Your task to perform on an android device: all mails in gmail Image 0: 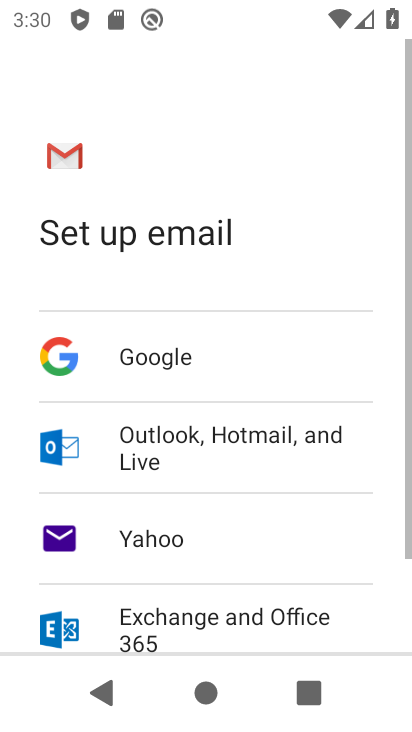
Step 0: press home button
Your task to perform on an android device: all mails in gmail Image 1: 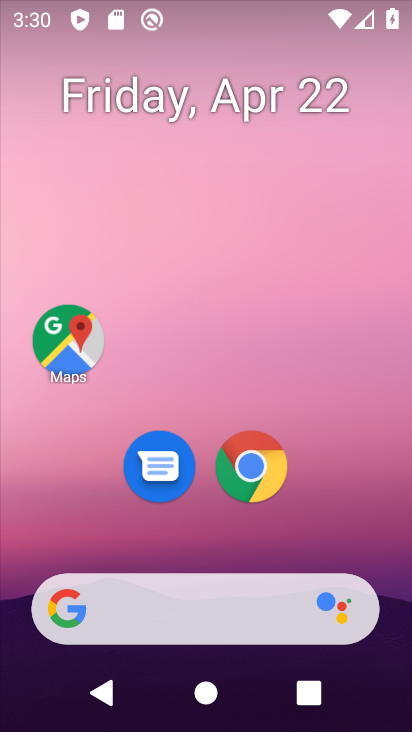
Step 1: drag from (397, 610) to (328, 200)
Your task to perform on an android device: all mails in gmail Image 2: 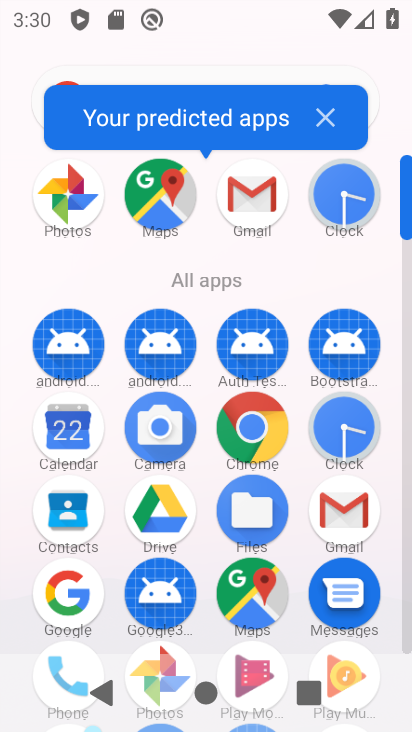
Step 2: click (404, 635)
Your task to perform on an android device: all mails in gmail Image 3: 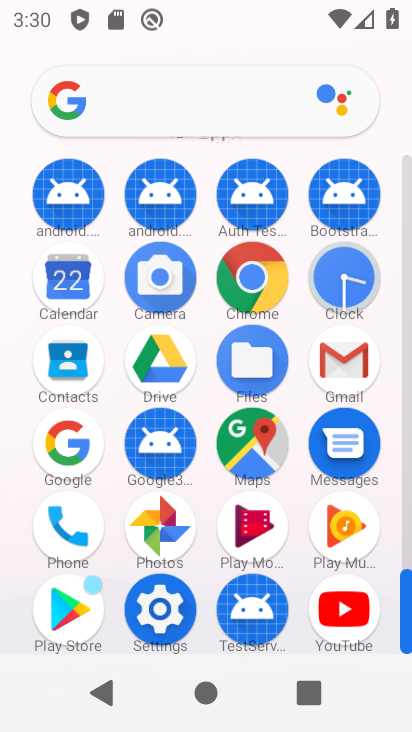
Step 3: click (343, 362)
Your task to perform on an android device: all mails in gmail Image 4: 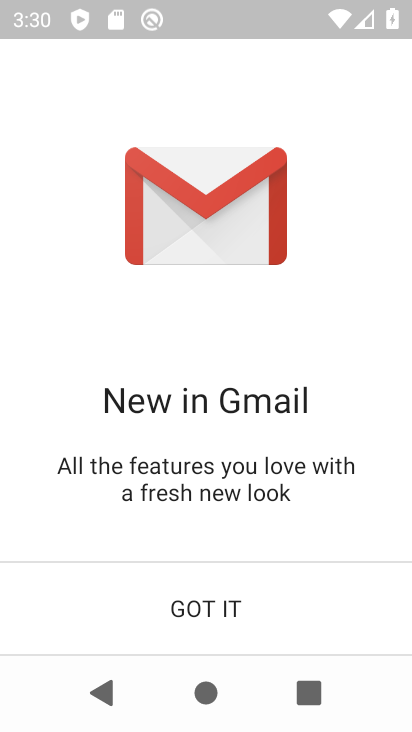
Step 4: click (204, 604)
Your task to perform on an android device: all mails in gmail Image 5: 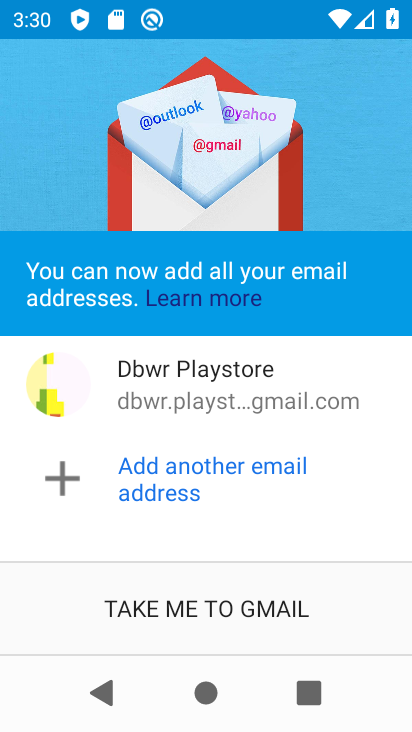
Step 5: click (204, 604)
Your task to perform on an android device: all mails in gmail Image 6: 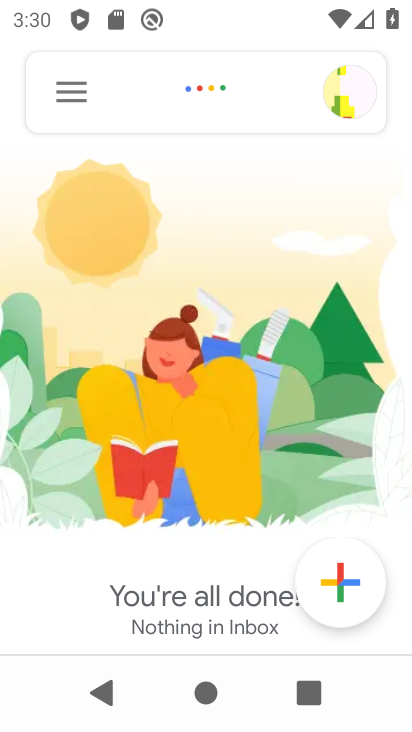
Step 6: click (74, 90)
Your task to perform on an android device: all mails in gmail Image 7: 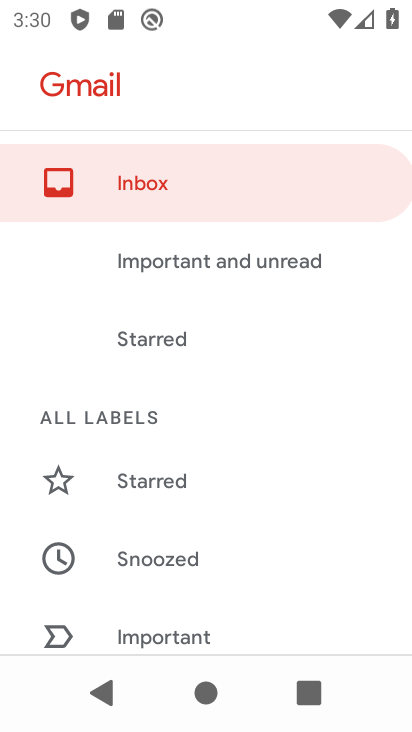
Step 7: drag from (240, 551) to (258, 221)
Your task to perform on an android device: all mails in gmail Image 8: 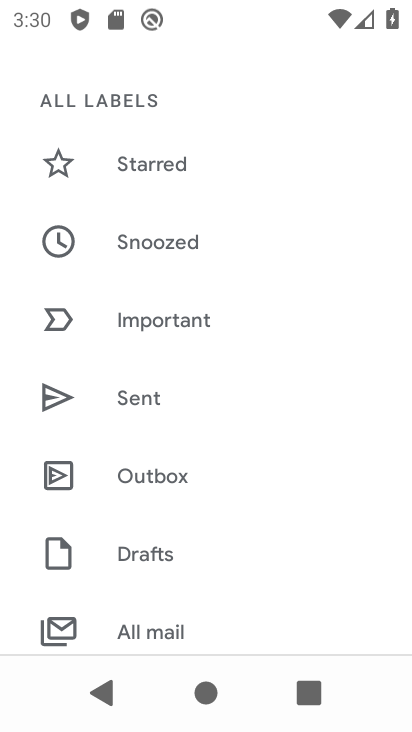
Step 8: drag from (247, 556) to (237, 254)
Your task to perform on an android device: all mails in gmail Image 9: 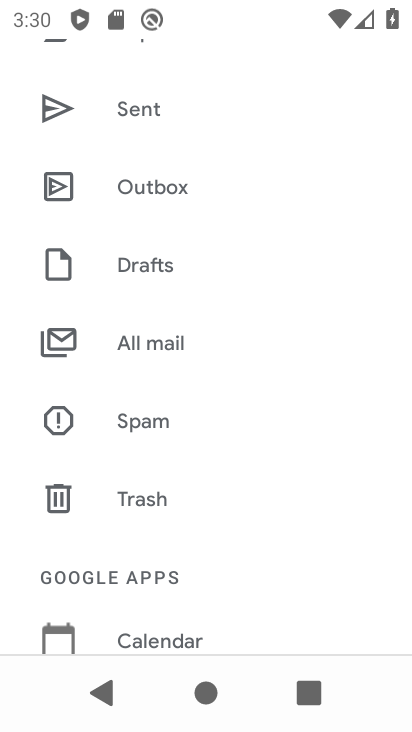
Step 9: click (135, 352)
Your task to perform on an android device: all mails in gmail Image 10: 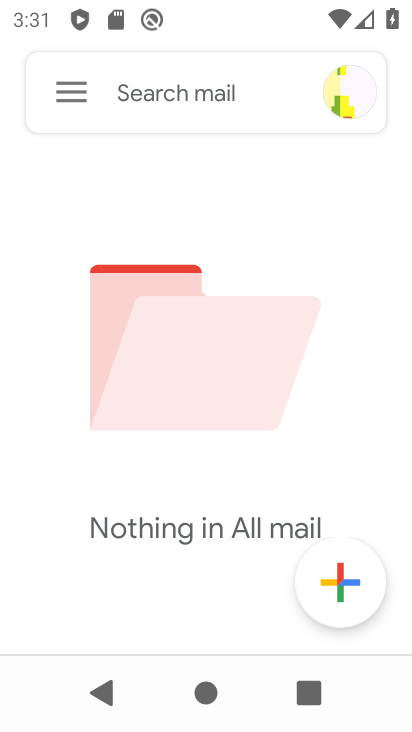
Step 10: task complete